Your task to perform on an android device: change the upload size in google photos Image 0: 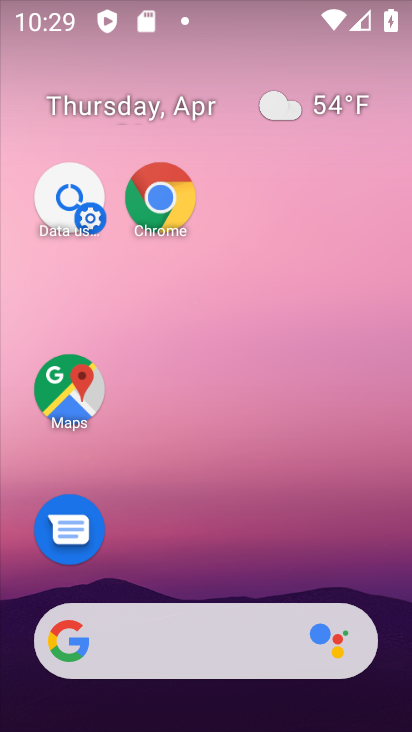
Step 0: drag from (185, 563) to (170, 20)
Your task to perform on an android device: change the upload size in google photos Image 1: 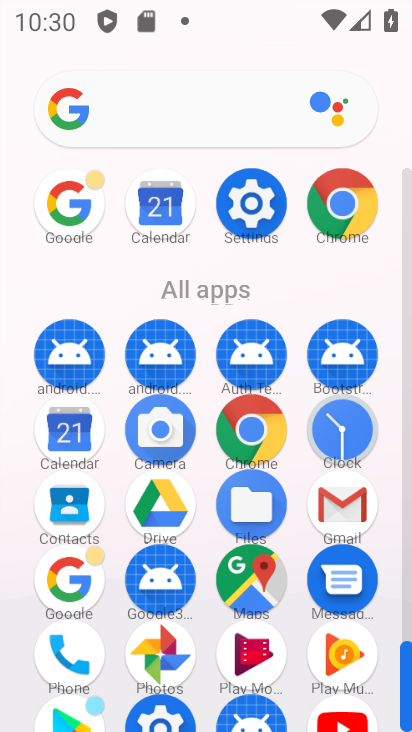
Step 1: click (163, 644)
Your task to perform on an android device: change the upload size in google photos Image 2: 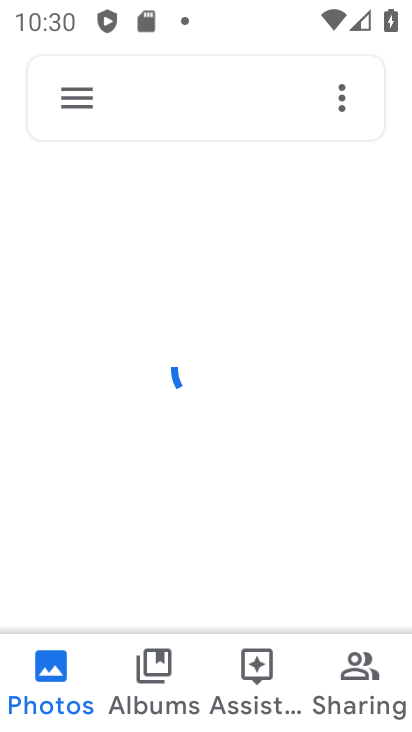
Step 2: click (54, 102)
Your task to perform on an android device: change the upload size in google photos Image 3: 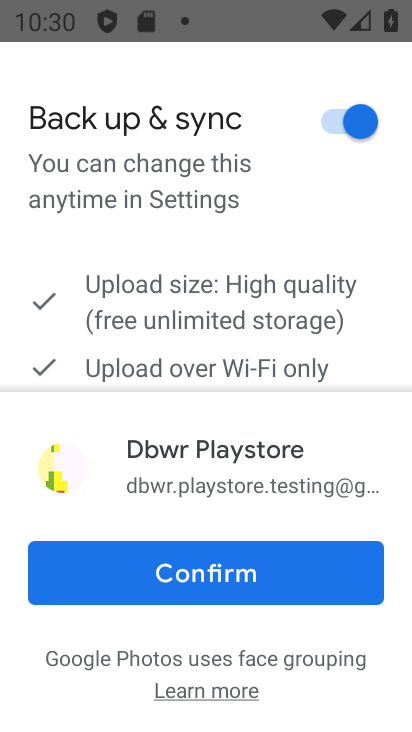
Step 3: drag from (150, 315) to (166, 40)
Your task to perform on an android device: change the upload size in google photos Image 4: 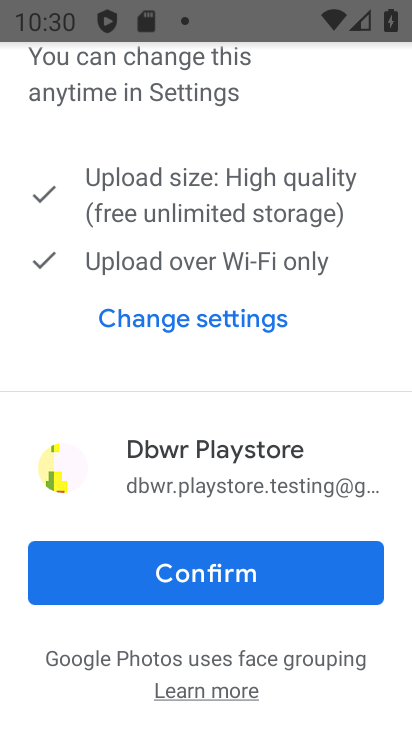
Step 4: click (251, 318)
Your task to perform on an android device: change the upload size in google photos Image 5: 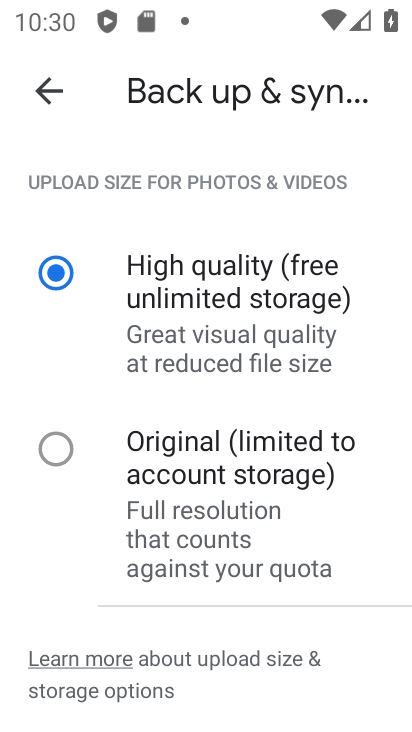
Step 5: click (58, 454)
Your task to perform on an android device: change the upload size in google photos Image 6: 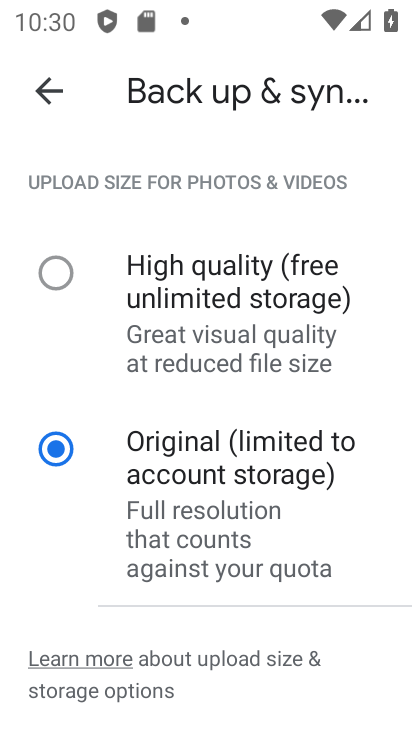
Step 6: drag from (91, 504) to (51, 24)
Your task to perform on an android device: change the upload size in google photos Image 7: 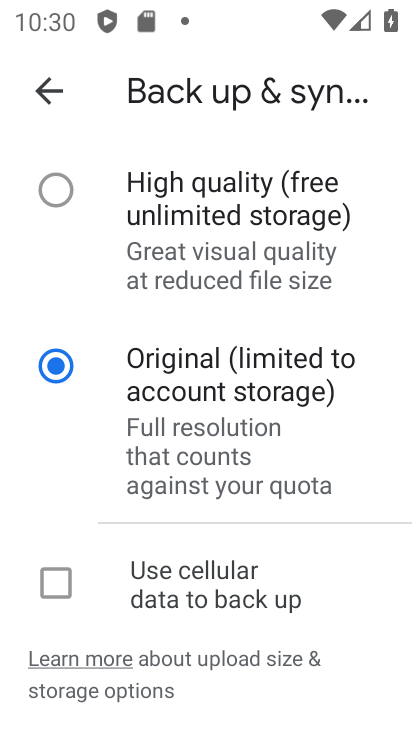
Step 7: drag from (196, 514) to (140, 38)
Your task to perform on an android device: change the upload size in google photos Image 8: 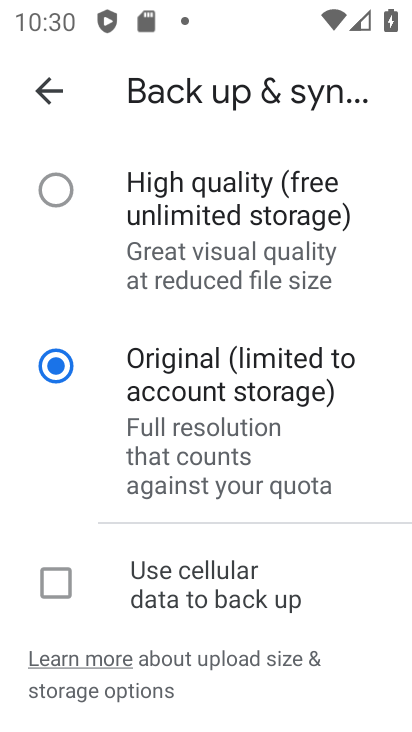
Step 8: click (61, 94)
Your task to perform on an android device: change the upload size in google photos Image 9: 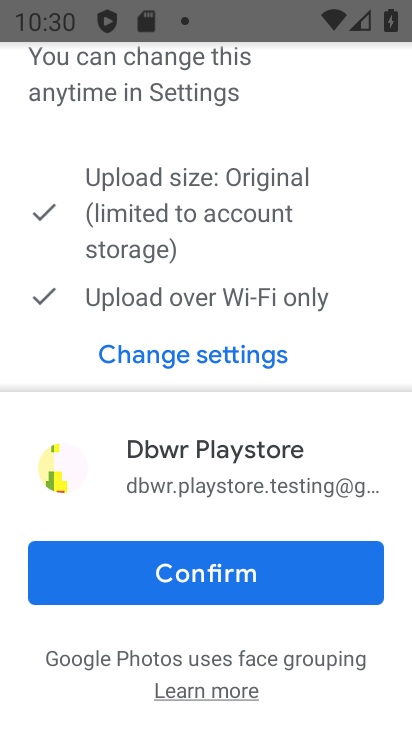
Step 9: click (200, 553)
Your task to perform on an android device: change the upload size in google photos Image 10: 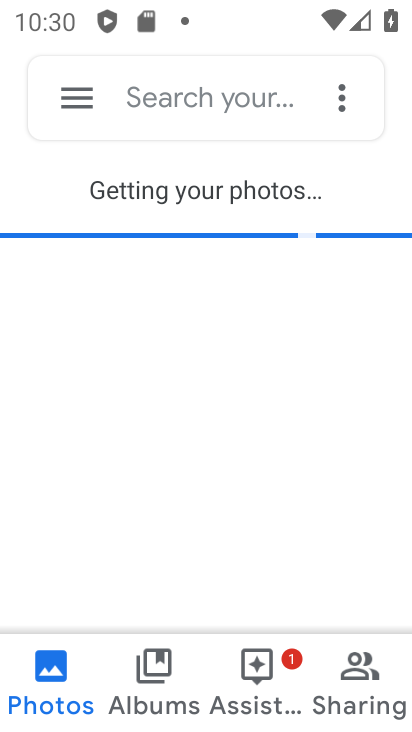
Step 10: task complete